Your task to perform on an android device: snooze an email in the gmail app Image 0: 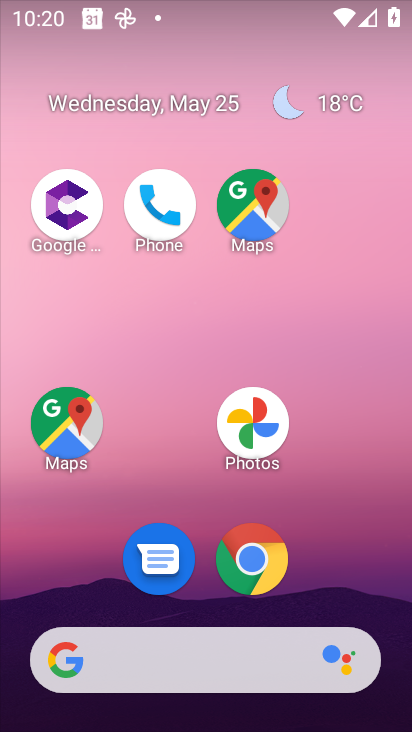
Step 0: drag from (353, 565) to (335, 53)
Your task to perform on an android device: snooze an email in the gmail app Image 1: 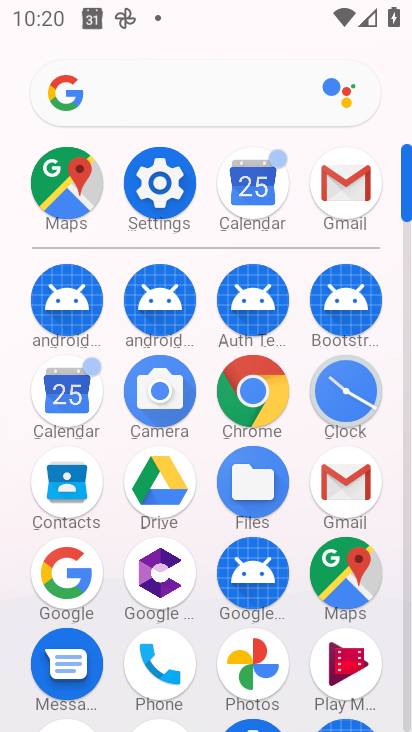
Step 1: click (356, 189)
Your task to perform on an android device: snooze an email in the gmail app Image 2: 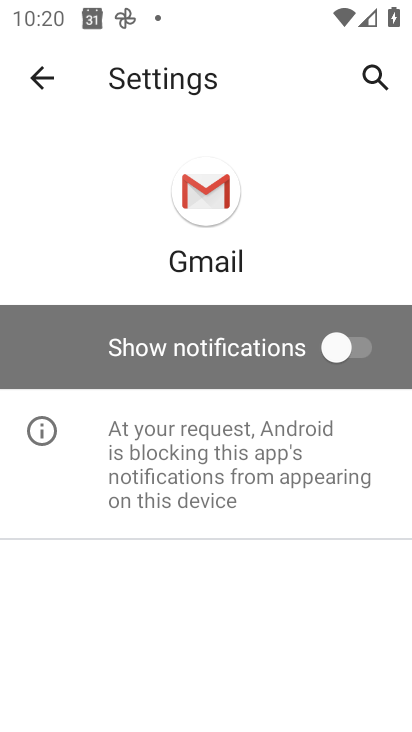
Step 2: click (47, 73)
Your task to perform on an android device: snooze an email in the gmail app Image 3: 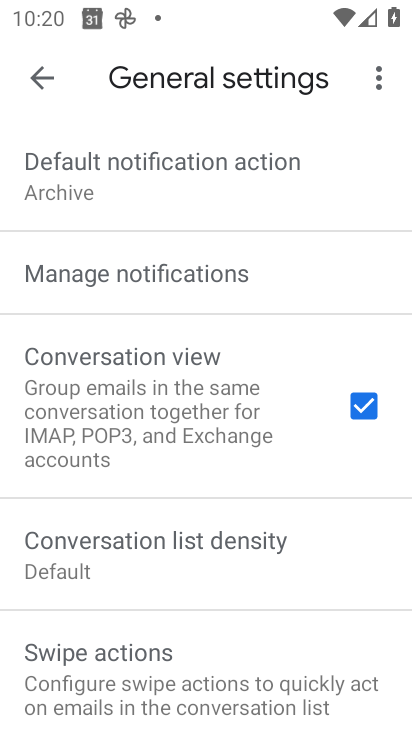
Step 3: click (51, 71)
Your task to perform on an android device: snooze an email in the gmail app Image 4: 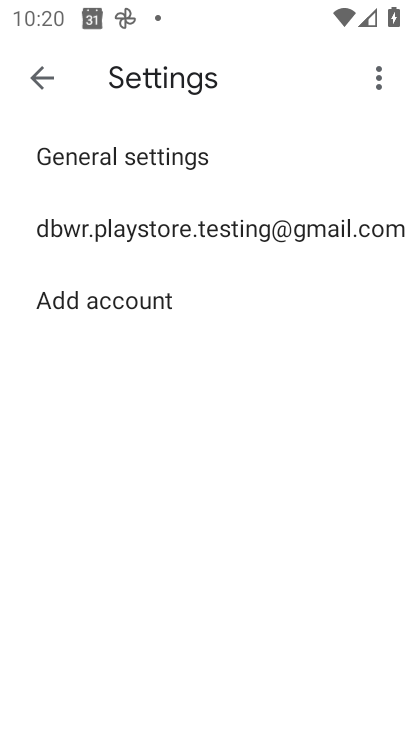
Step 4: click (41, 71)
Your task to perform on an android device: snooze an email in the gmail app Image 5: 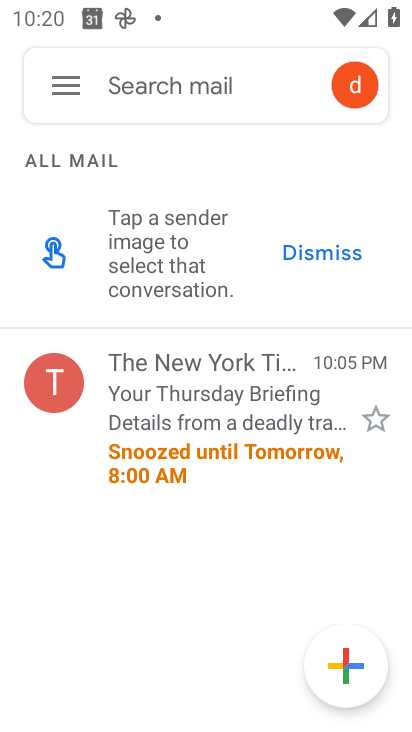
Step 5: click (49, 374)
Your task to perform on an android device: snooze an email in the gmail app Image 6: 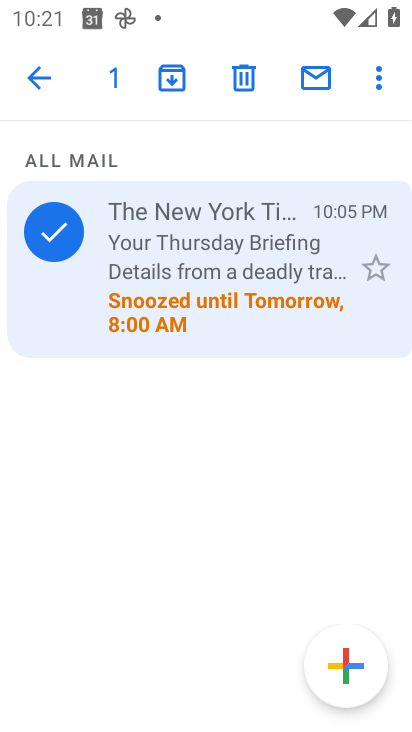
Step 6: click (391, 81)
Your task to perform on an android device: snooze an email in the gmail app Image 7: 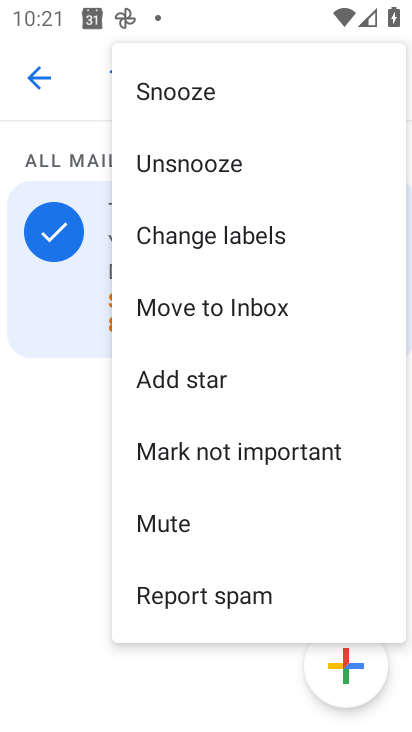
Step 7: click (219, 84)
Your task to perform on an android device: snooze an email in the gmail app Image 8: 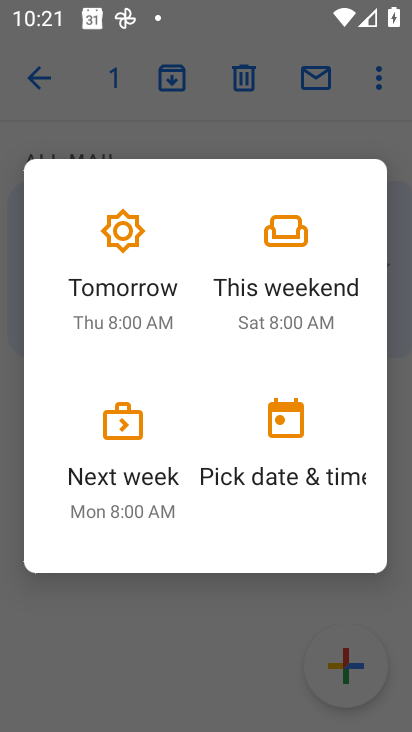
Step 8: click (119, 459)
Your task to perform on an android device: snooze an email in the gmail app Image 9: 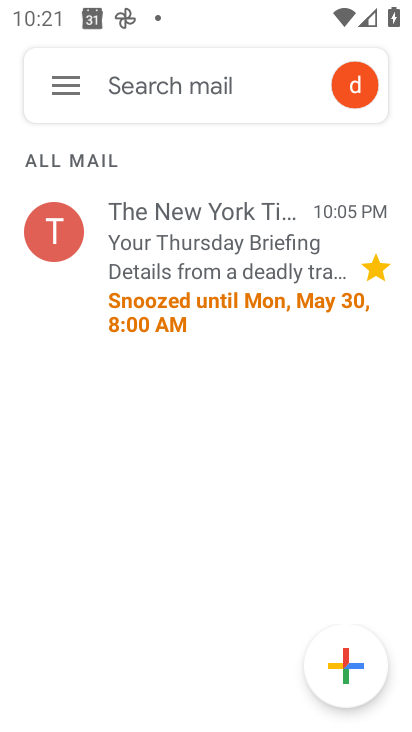
Step 9: task complete